Your task to perform on an android device: toggle notifications settings in the gmail app Image 0: 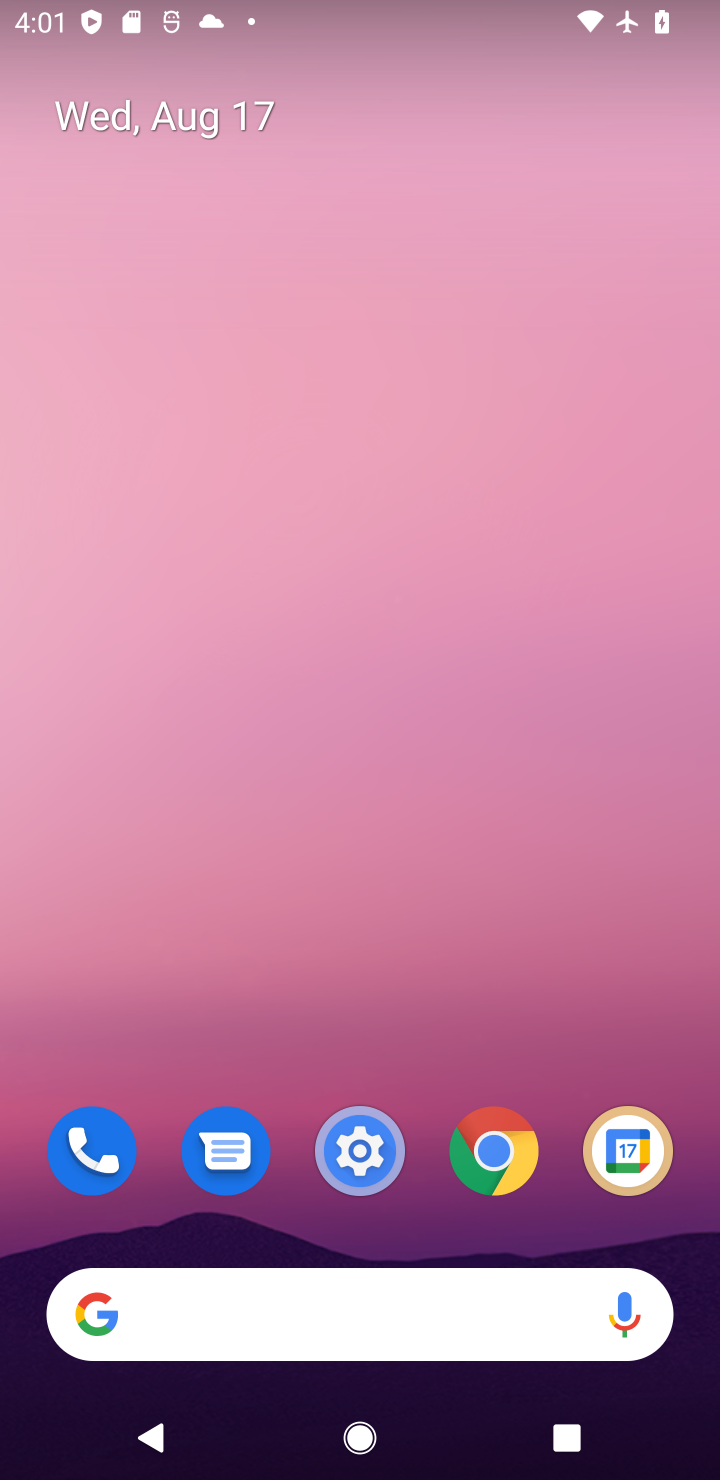
Step 0: drag from (458, 1395) to (321, 381)
Your task to perform on an android device: toggle notifications settings in the gmail app Image 1: 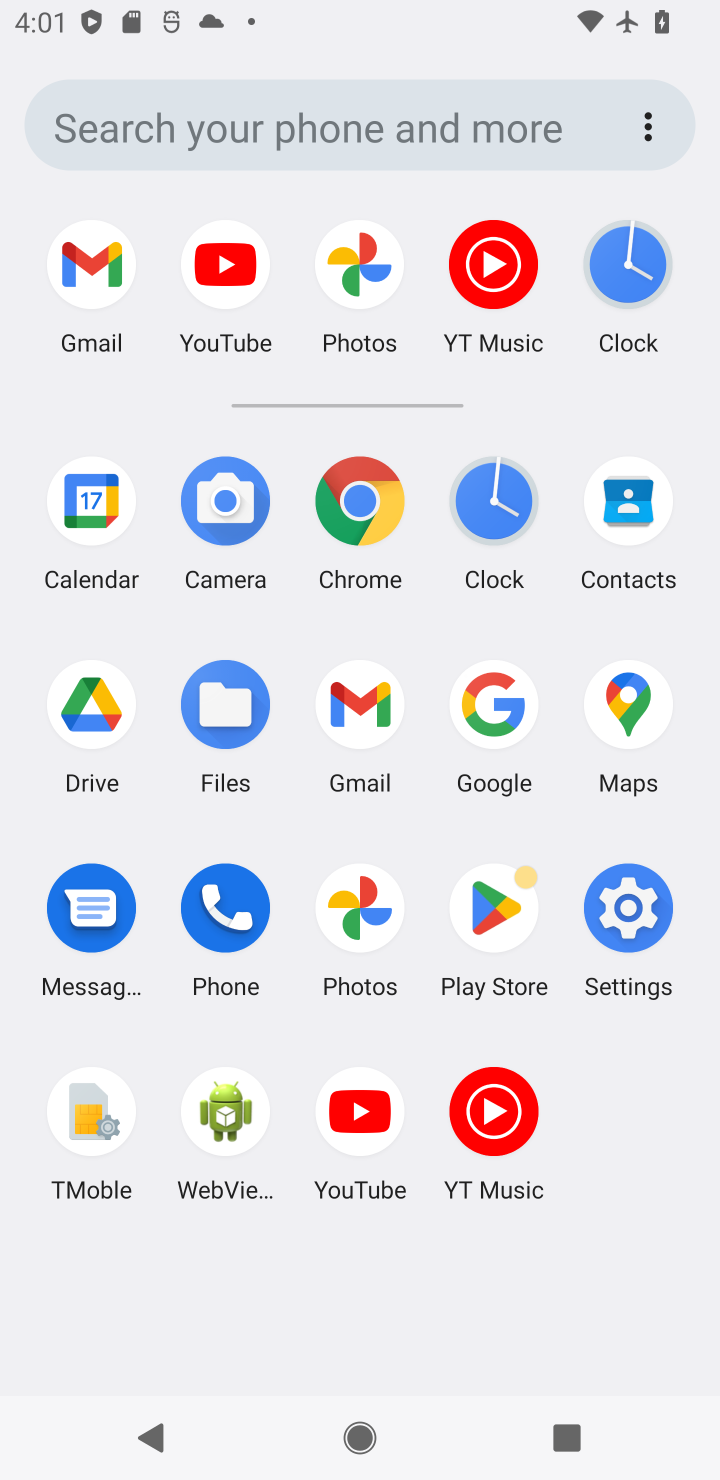
Step 1: click (349, 708)
Your task to perform on an android device: toggle notifications settings in the gmail app Image 2: 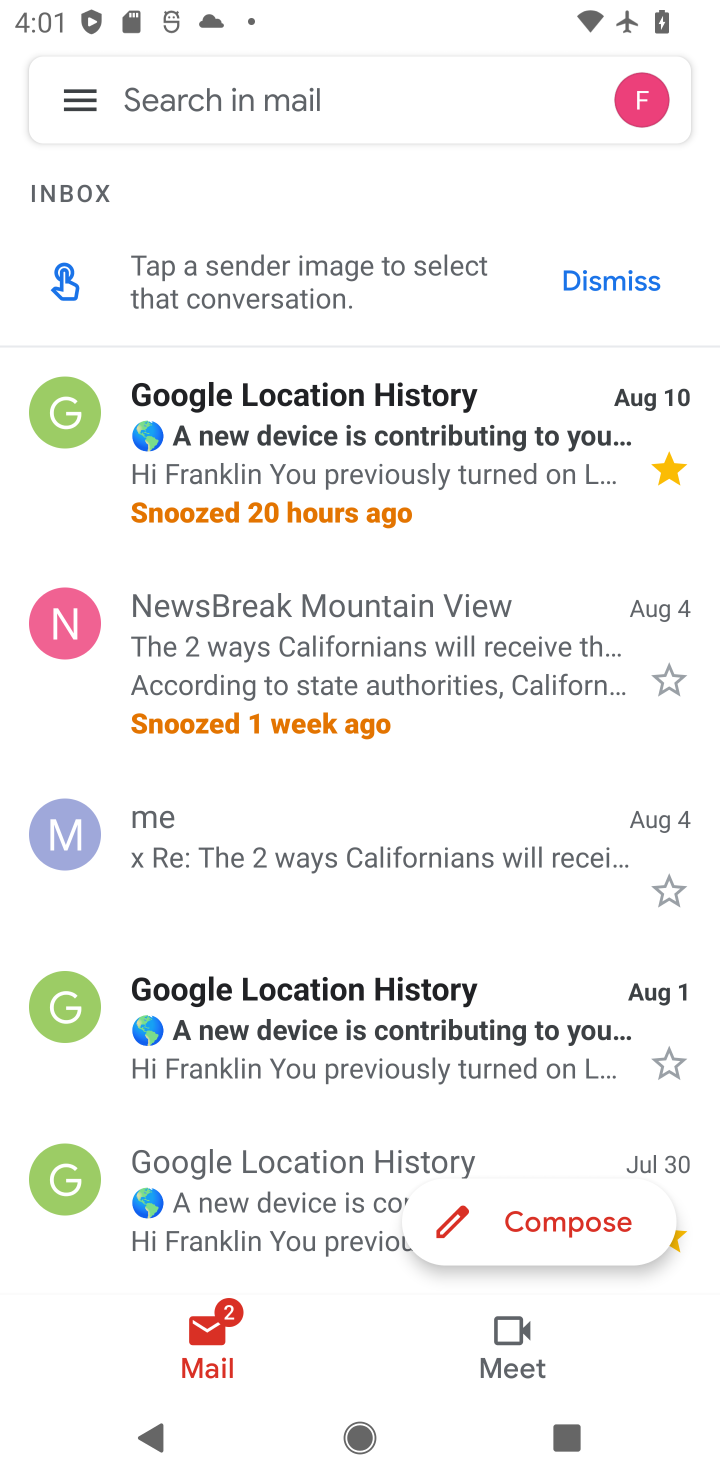
Step 2: click (71, 85)
Your task to perform on an android device: toggle notifications settings in the gmail app Image 3: 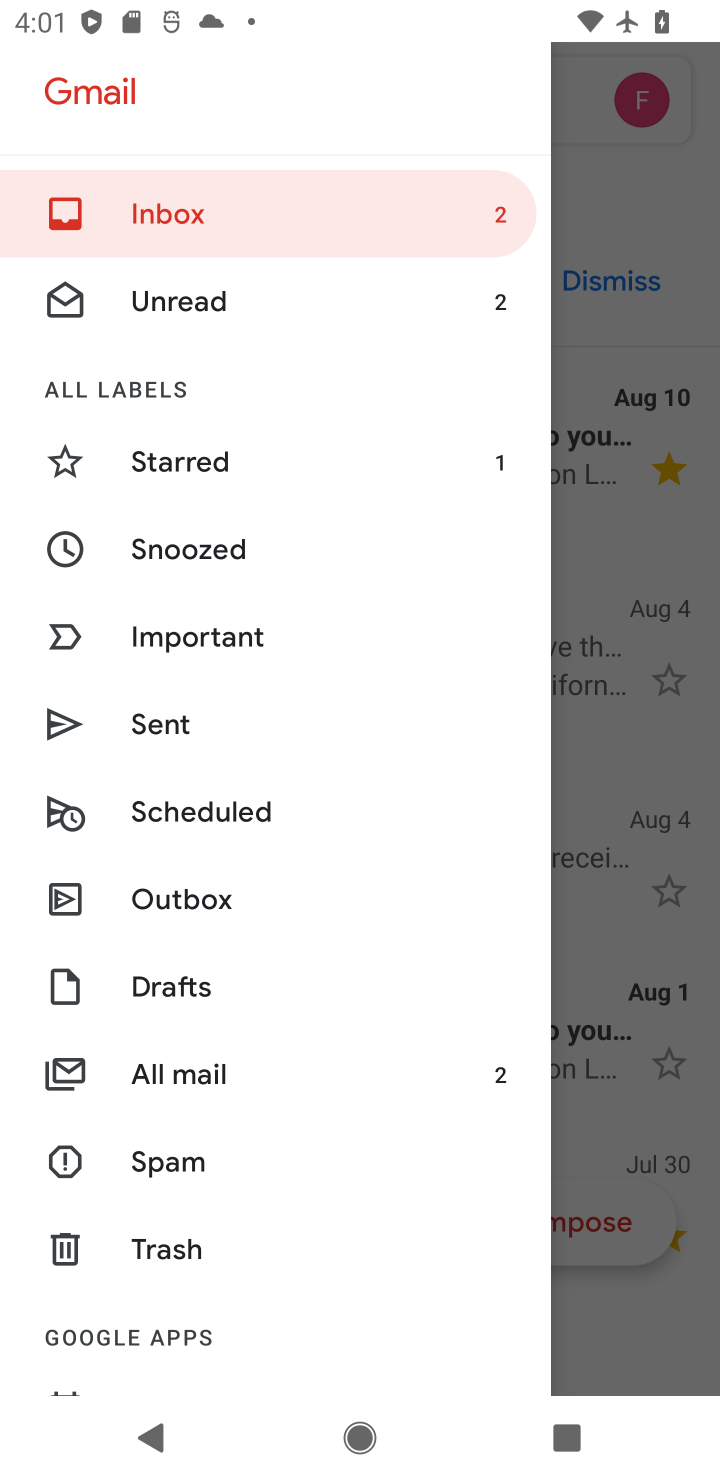
Step 3: drag from (203, 1243) to (301, 236)
Your task to perform on an android device: toggle notifications settings in the gmail app Image 4: 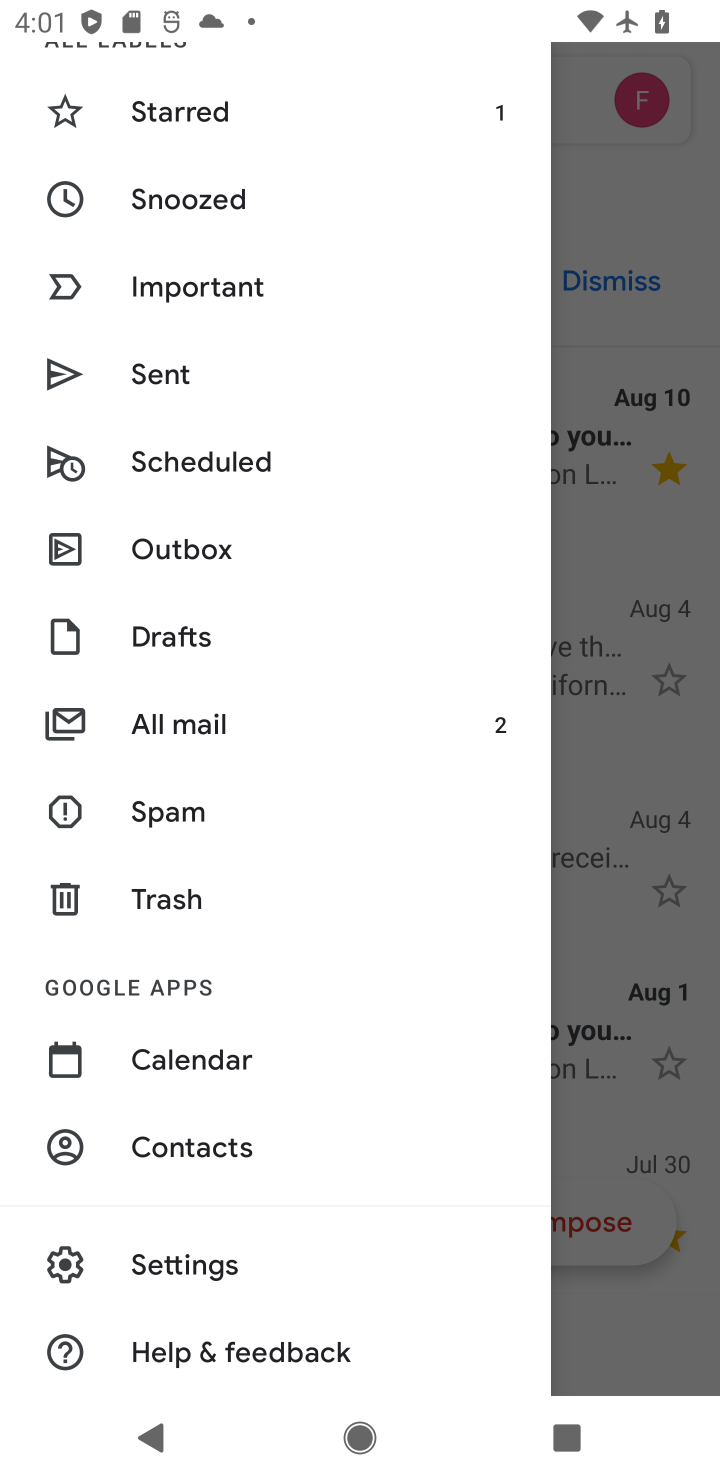
Step 4: click (177, 1250)
Your task to perform on an android device: toggle notifications settings in the gmail app Image 5: 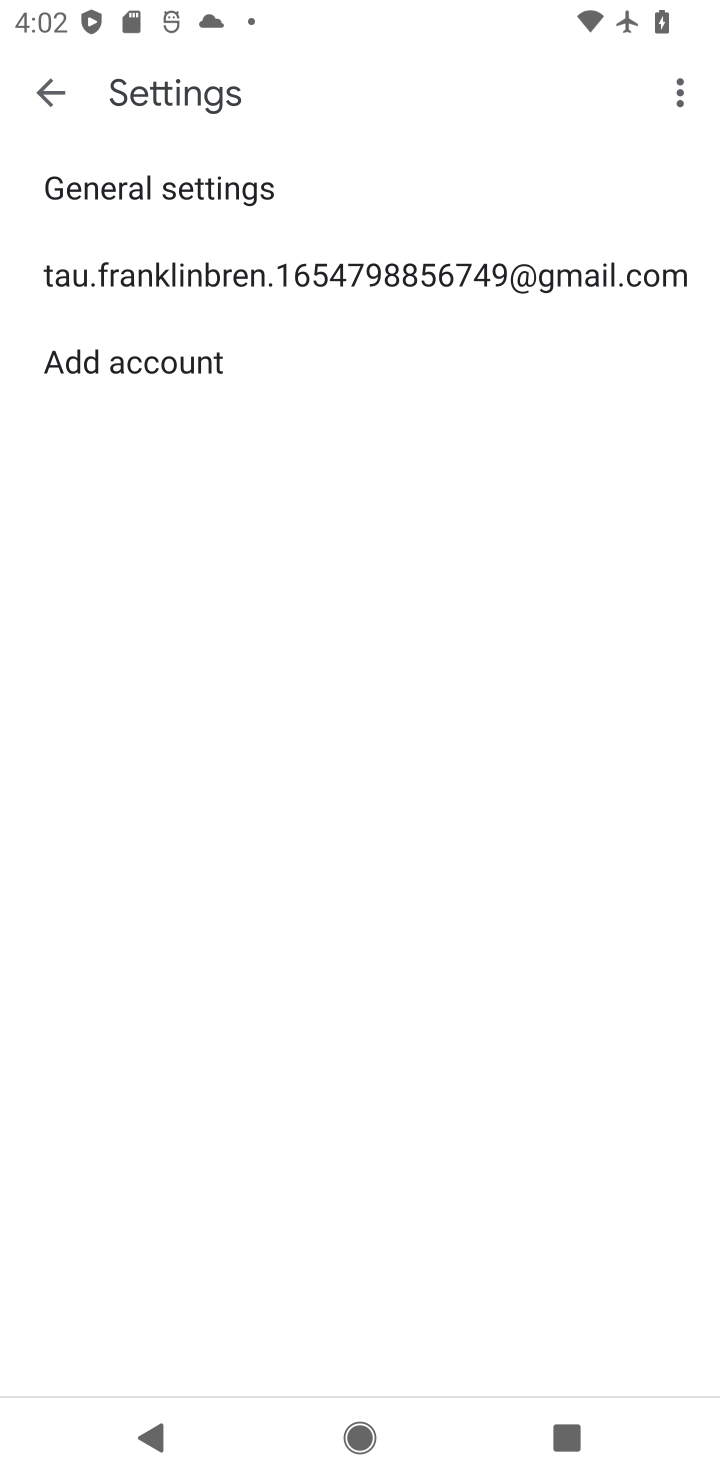
Step 5: click (216, 282)
Your task to perform on an android device: toggle notifications settings in the gmail app Image 6: 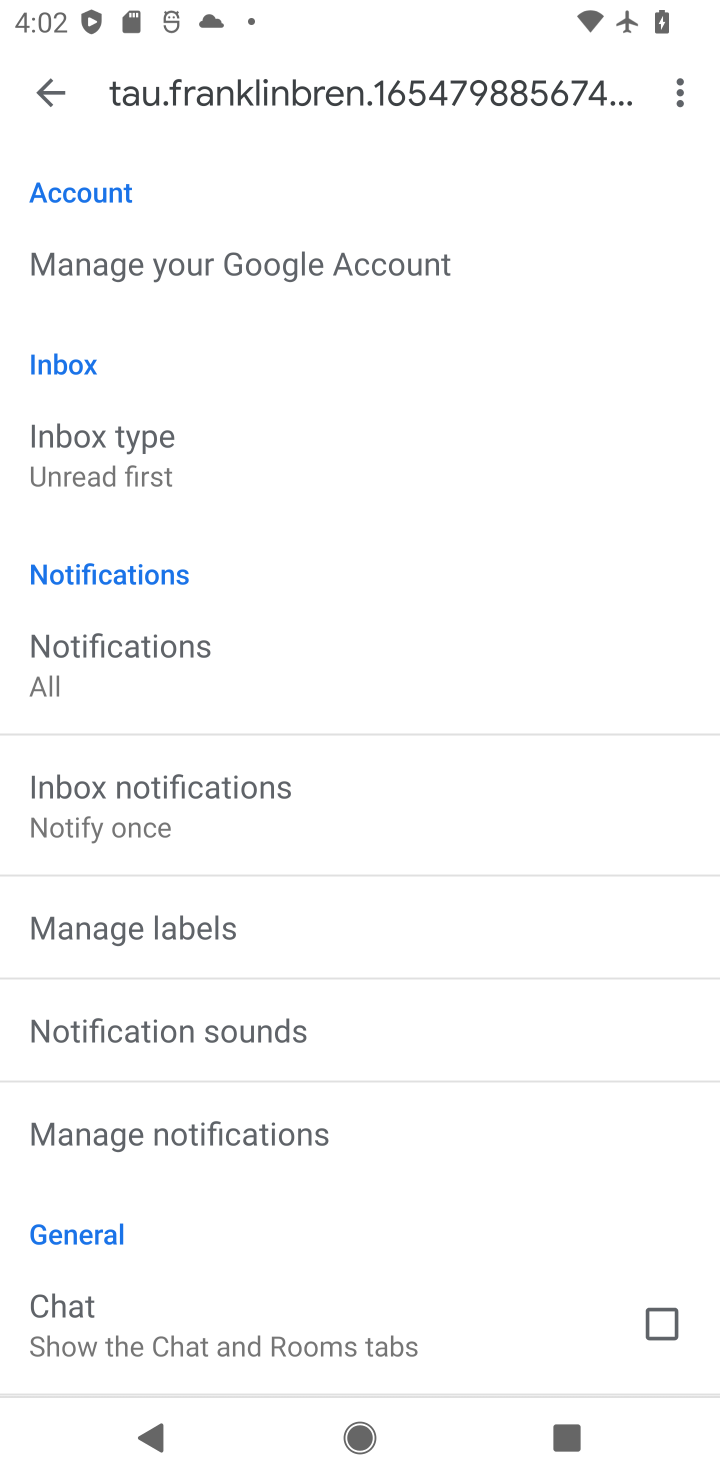
Step 6: click (160, 674)
Your task to perform on an android device: toggle notifications settings in the gmail app Image 7: 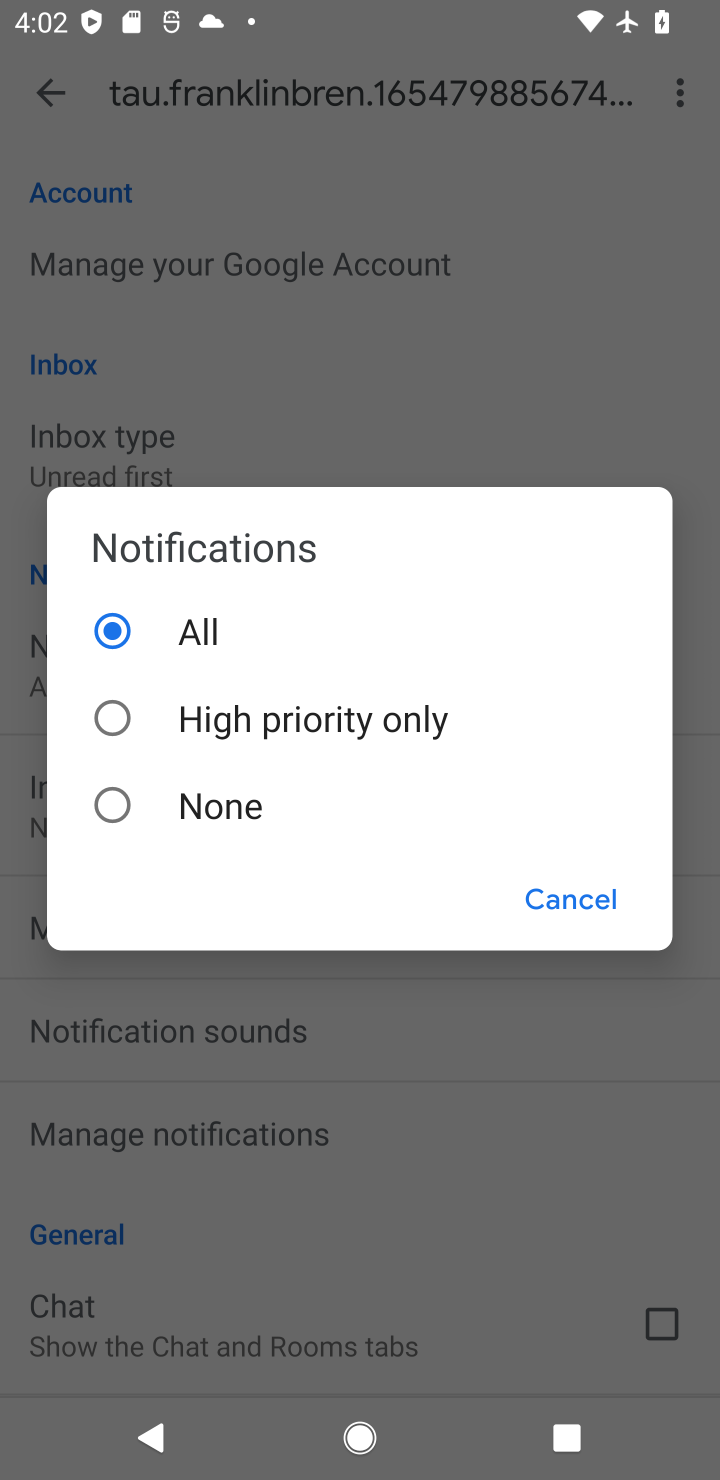
Step 7: click (152, 791)
Your task to perform on an android device: toggle notifications settings in the gmail app Image 8: 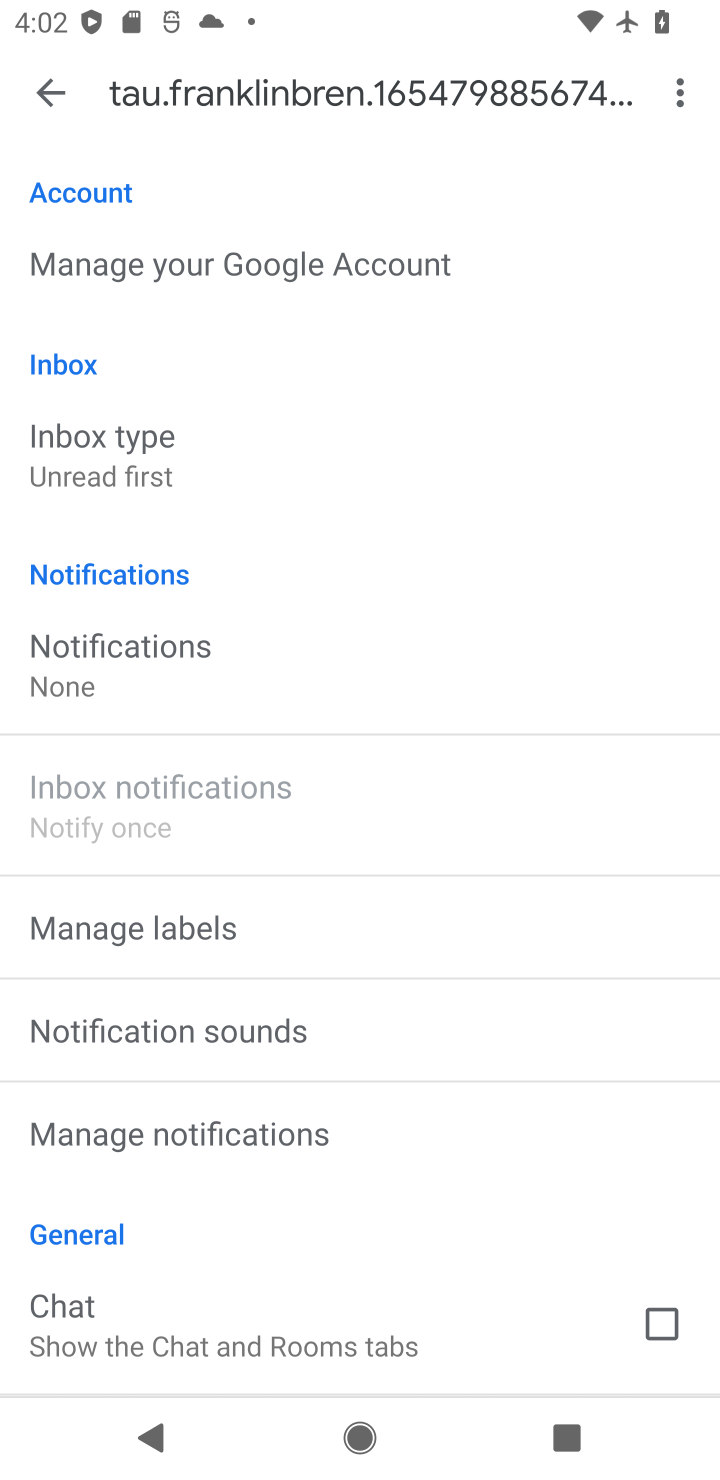
Step 8: task complete